Your task to perform on an android device: Open battery settings Image 0: 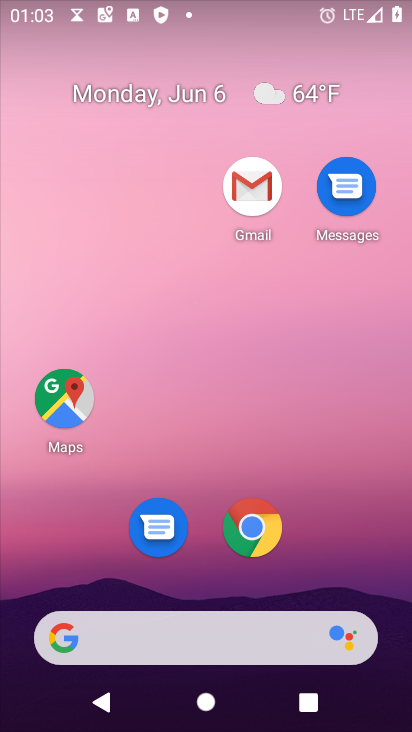
Step 0: drag from (329, 541) to (339, 56)
Your task to perform on an android device: Open battery settings Image 1: 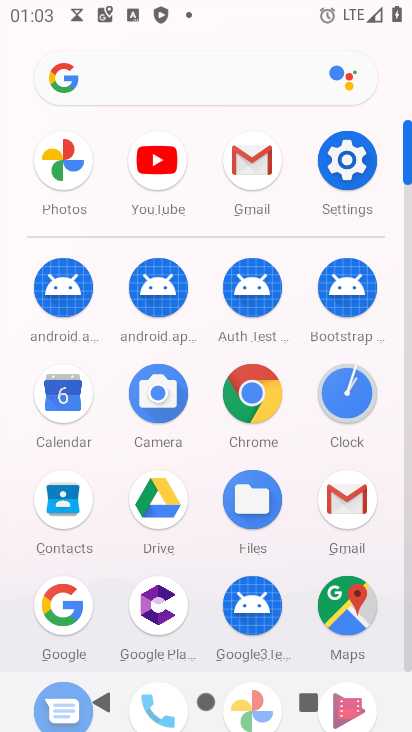
Step 1: click (343, 161)
Your task to perform on an android device: Open battery settings Image 2: 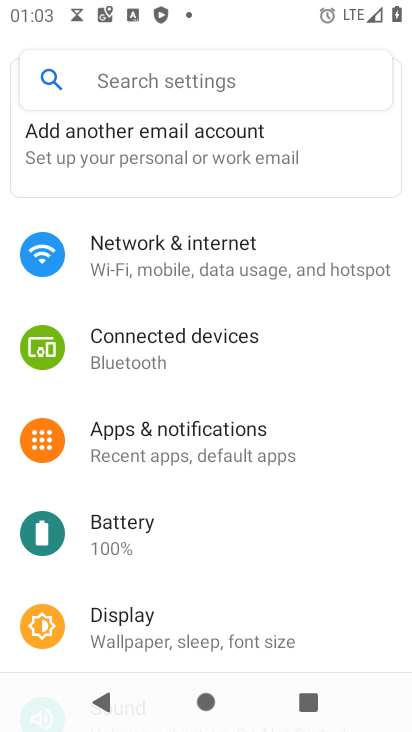
Step 2: click (236, 530)
Your task to perform on an android device: Open battery settings Image 3: 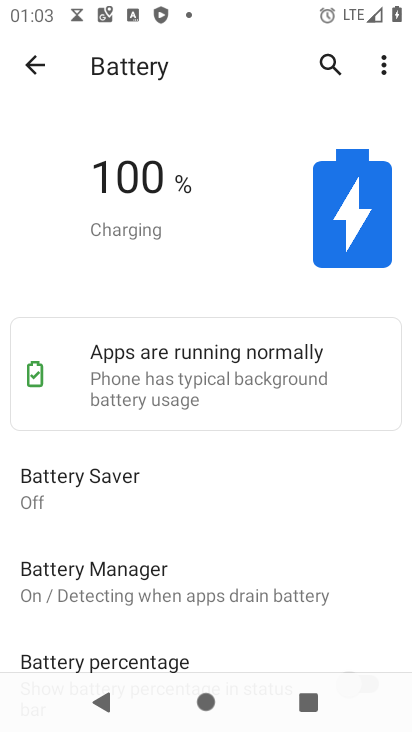
Step 3: task complete